Your task to perform on an android device: toggle pop-ups in chrome Image 0: 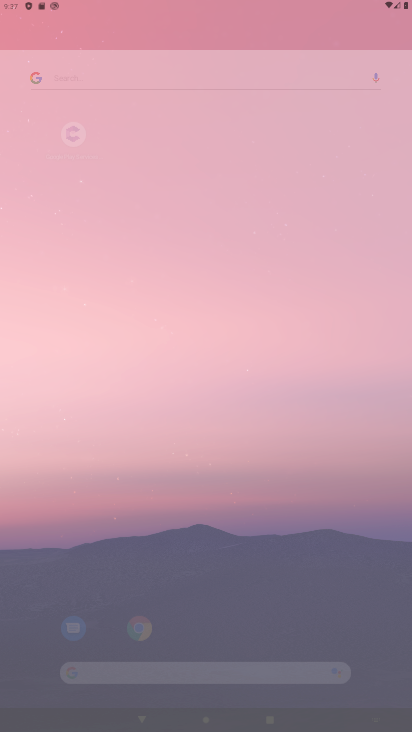
Step 0: drag from (270, 558) to (243, 223)
Your task to perform on an android device: toggle pop-ups in chrome Image 1: 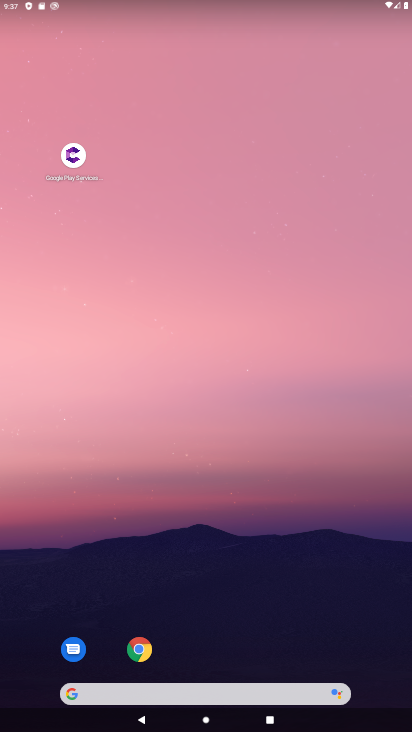
Step 1: drag from (261, 538) to (198, 115)
Your task to perform on an android device: toggle pop-ups in chrome Image 2: 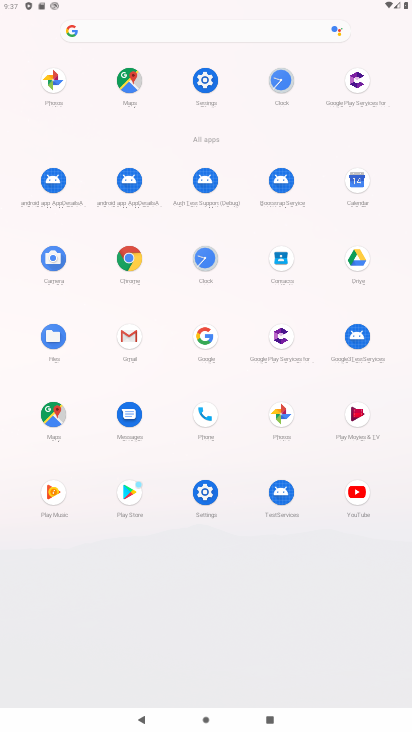
Step 2: click (128, 263)
Your task to perform on an android device: toggle pop-ups in chrome Image 3: 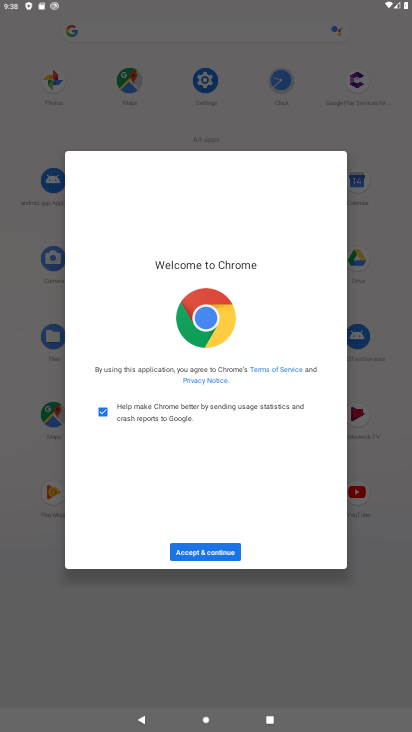
Step 3: click (217, 551)
Your task to perform on an android device: toggle pop-ups in chrome Image 4: 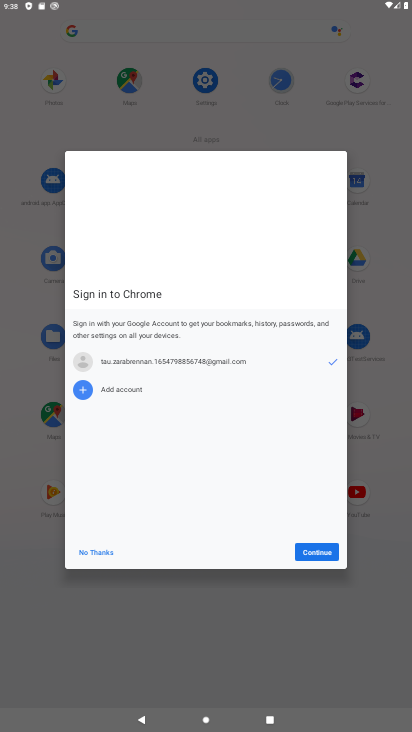
Step 4: click (102, 550)
Your task to perform on an android device: toggle pop-ups in chrome Image 5: 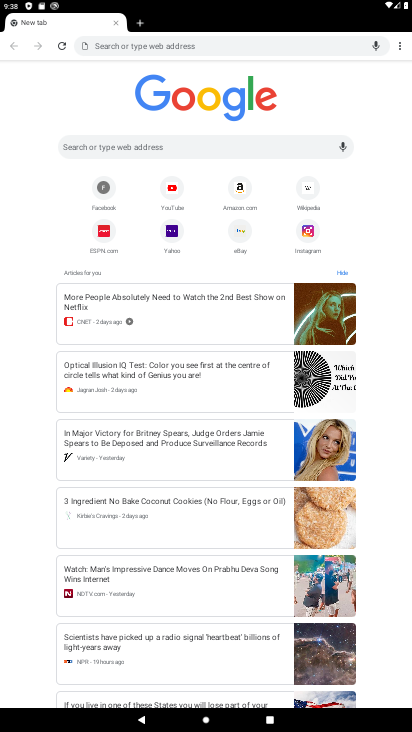
Step 5: drag from (397, 50) to (305, 215)
Your task to perform on an android device: toggle pop-ups in chrome Image 6: 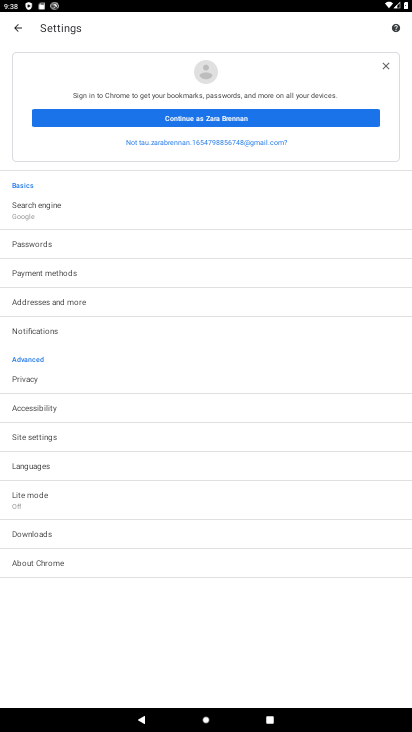
Step 6: click (65, 448)
Your task to perform on an android device: toggle pop-ups in chrome Image 7: 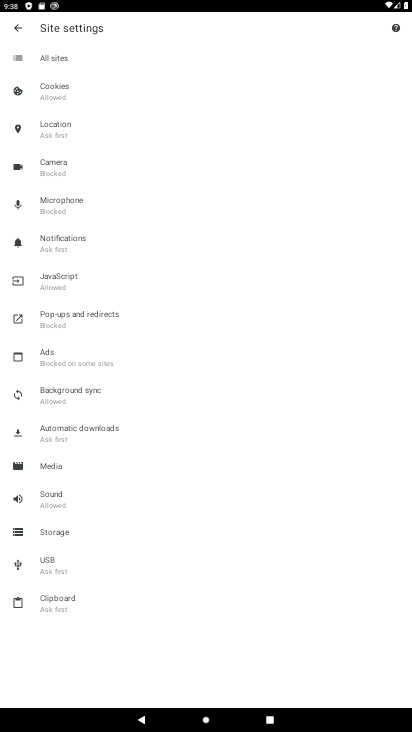
Step 7: click (86, 314)
Your task to perform on an android device: toggle pop-ups in chrome Image 8: 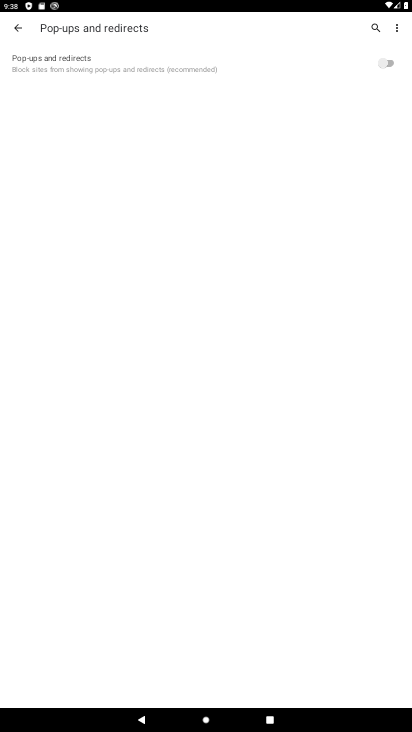
Step 8: click (388, 53)
Your task to perform on an android device: toggle pop-ups in chrome Image 9: 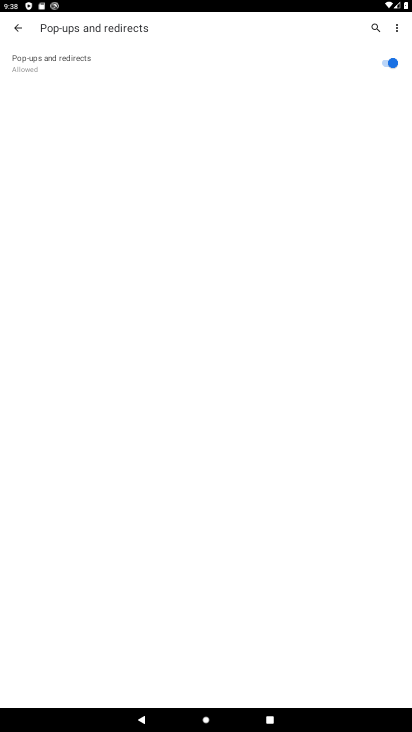
Step 9: task complete